Your task to perform on an android device: Show me popular videos on Youtube Image 0: 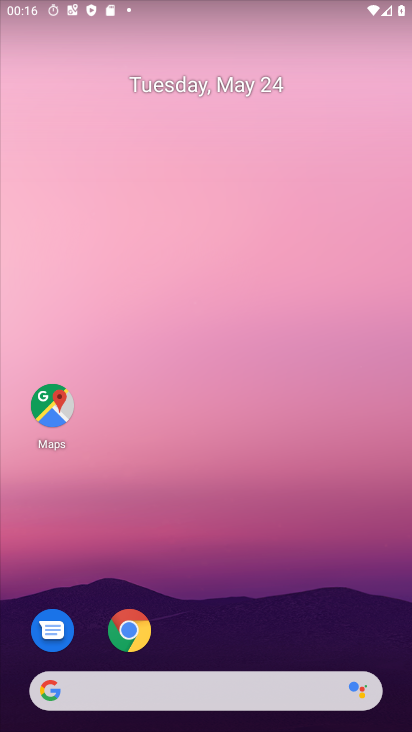
Step 0: drag from (297, 628) to (305, 20)
Your task to perform on an android device: Show me popular videos on Youtube Image 1: 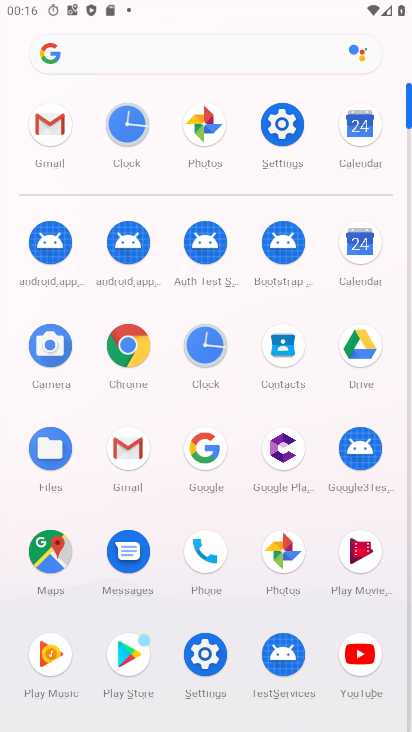
Step 1: click (359, 655)
Your task to perform on an android device: Show me popular videos on Youtube Image 2: 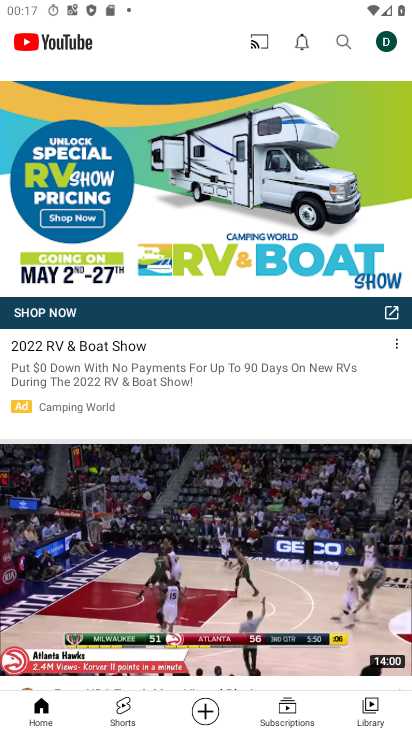
Step 2: click (33, 716)
Your task to perform on an android device: Show me popular videos on Youtube Image 3: 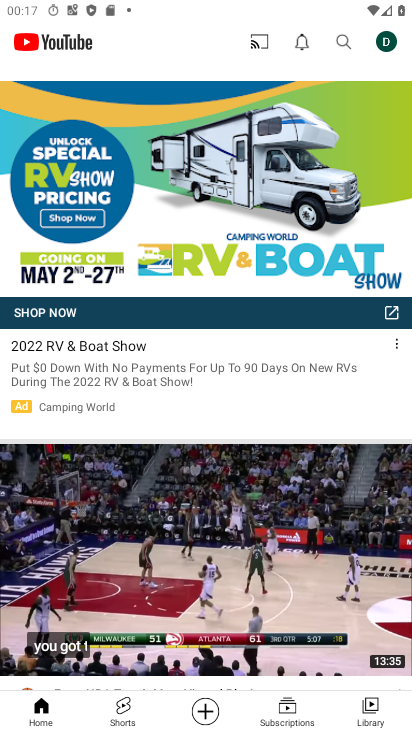
Step 3: task complete